Your task to perform on an android device: turn on data saver in the chrome app Image 0: 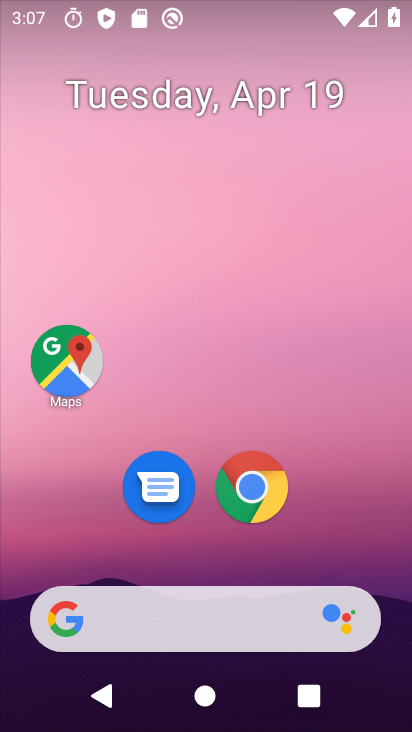
Step 0: click (259, 467)
Your task to perform on an android device: turn on data saver in the chrome app Image 1: 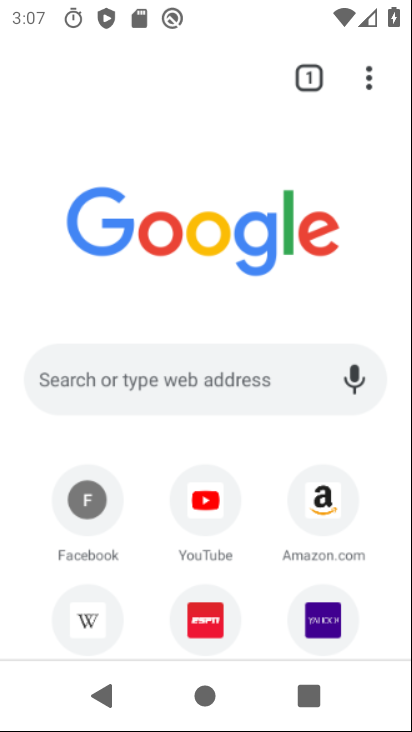
Step 1: click (366, 74)
Your task to perform on an android device: turn on data saver in the chrome app Image 2: 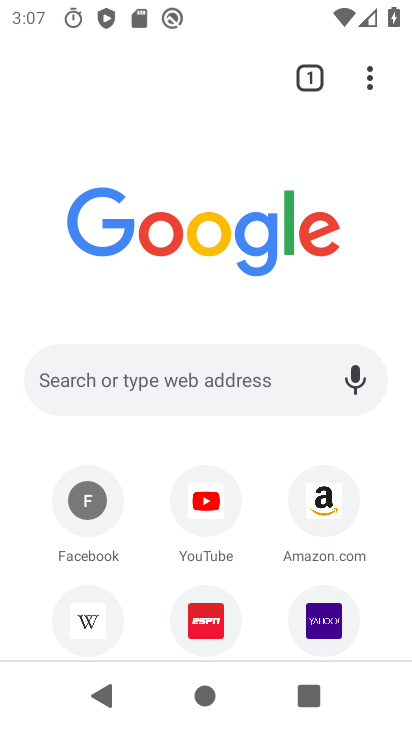
Step 2: click (371, 79)
Your task to perform on an android device: turn on data saver in the chrome app Image 3: 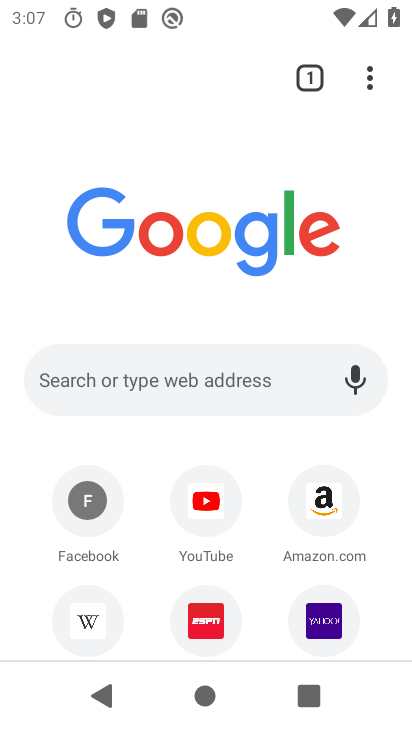
Step 3: click (372, 74)
Your task to perform on an android device: turn on data saver in the chrome app Image 4: 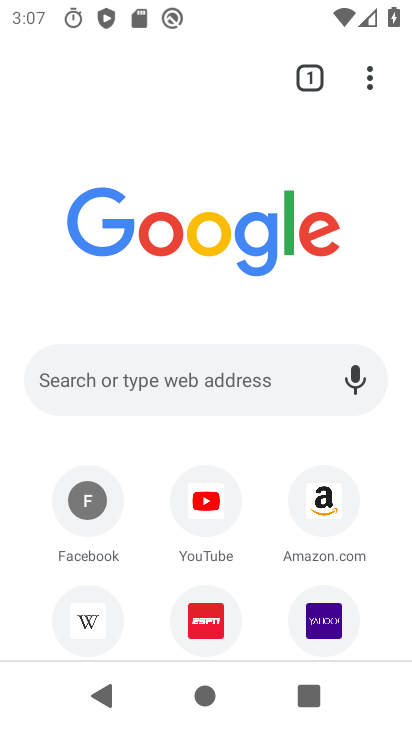
Step 4: drag from (372, 74) to (139, 543)
Your task to perform on an android device: turn on data saver in the chrome app Image 5: 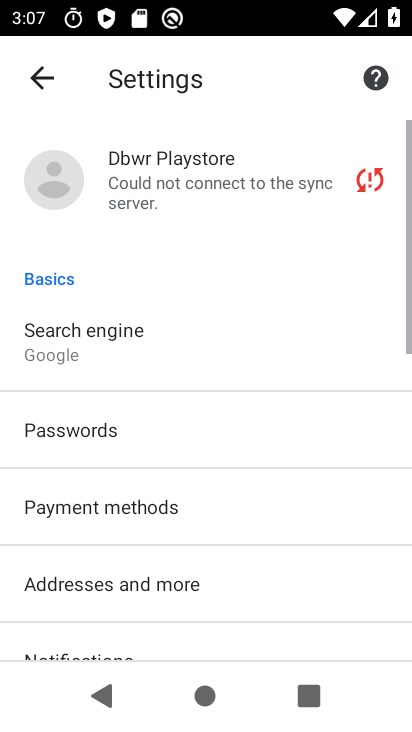
Step 5: drag from (177, 536) to (289, 28)
Your task to perform on an android device: turn on data saver in the chrome app Image 6: 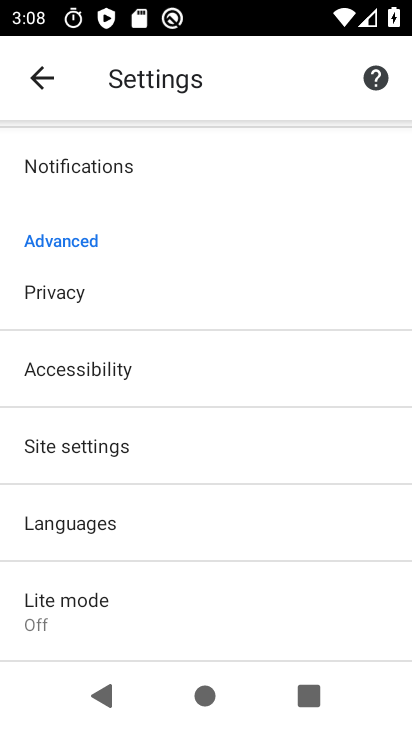
Step 6: click (80, 621)
Your task to perform on an android device: turn on data saver in the chrome app Image 7: 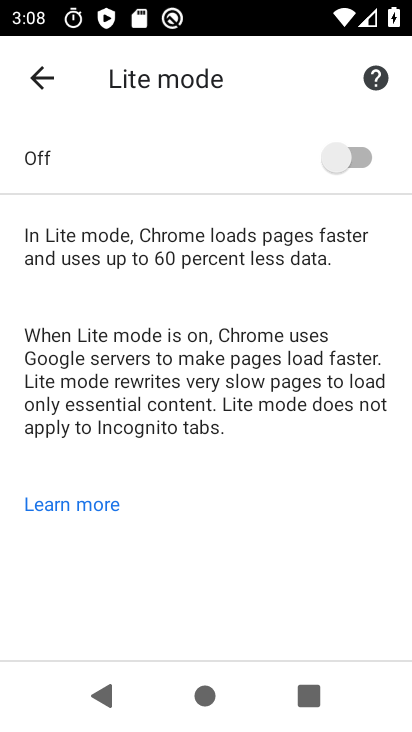
Step 7: click (341, 161)
Your task to perform on an android device: turn on data saver in the chrome app Image 8: 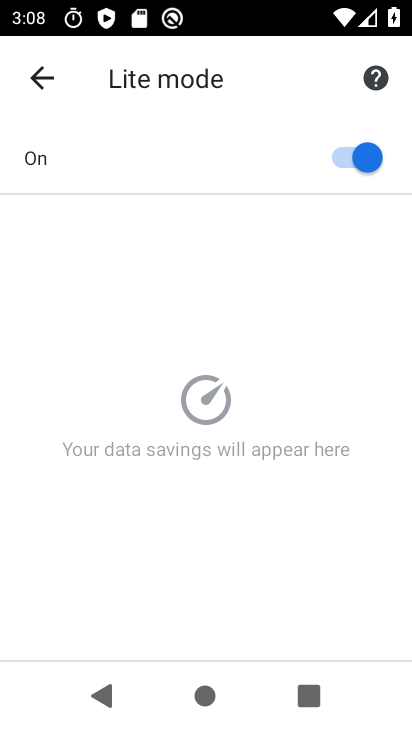
Step 8: task complete